Your task to perform on an android device: Do I have any events tomorrow? Image 0: 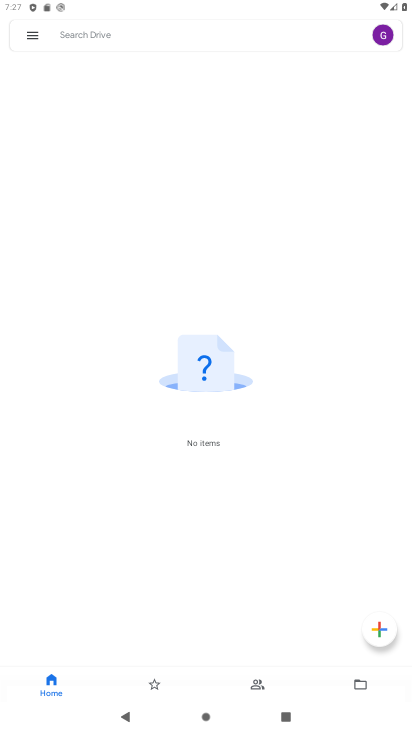
Step 0: press home button
Your task to perform on an android device: Do I have any events tomorrow? Image 1: 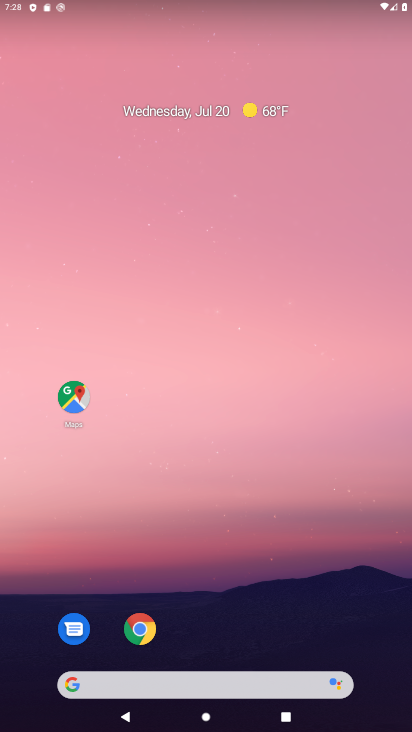
Step 1: drag from (343, 580) to (330, 118)
Your task to perform on an android device: Do I have any events tomorrow? Image 2: 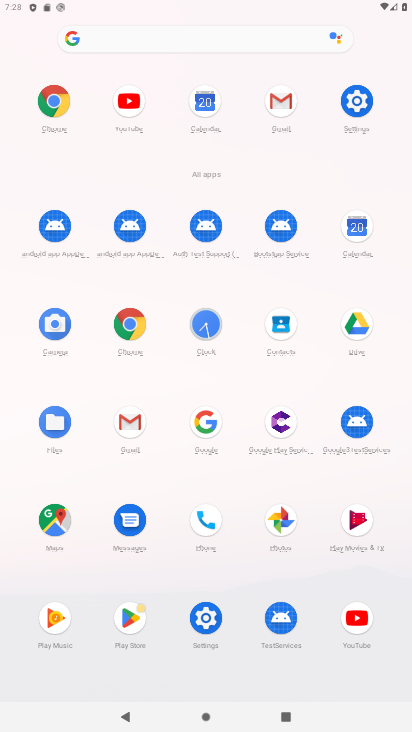
Step 2: click (360, 233)
Your task to perform on an android device: Do I have any events tomorrow? Image 3: 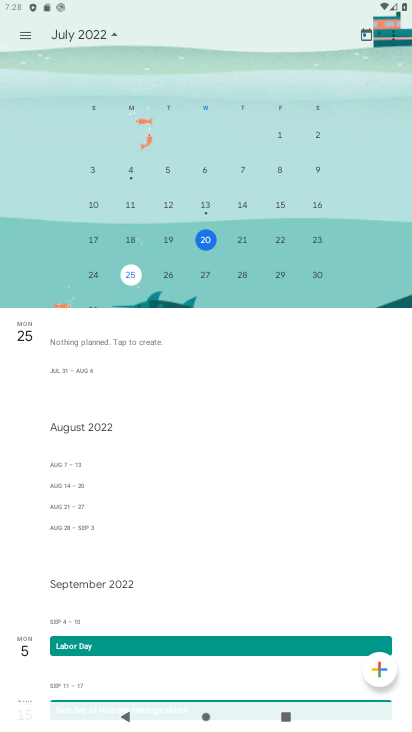
Step 3: click (282, 236)
Your task to perform on an android device: Do I have any events tomorrow? Image 4: 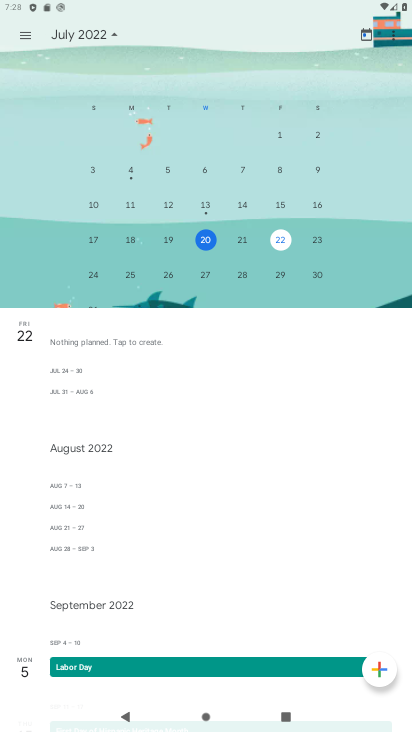
Step 4: task complete